Your task to perform on an android device: What is the recent news? Image 0: 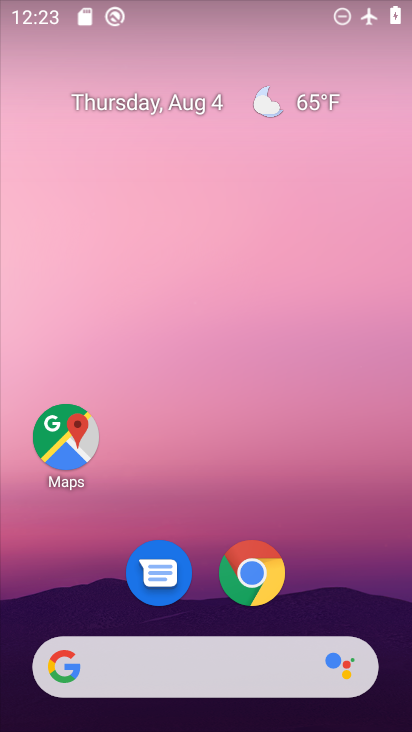
Step 0: drag from (337, 528) to (342, 181)
Your task to perform on an android device: What is the recent news? Image 1: 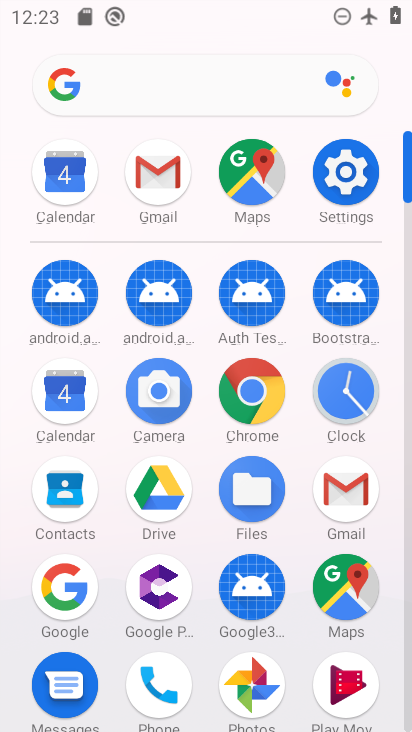
Step 1: click (246, 393)
Your task to perform on an android device: What is the recent news? Image 2: 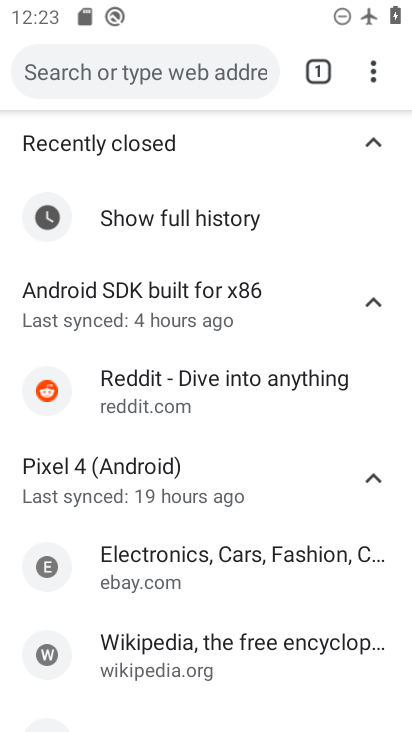
Step 2: click (185, 83)
Your task to perform on an android device: What is the recent news? Image 3: 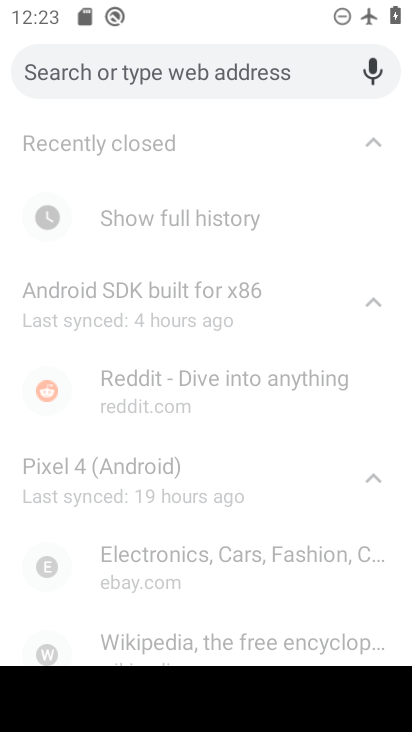
Step 3: type "news"
Your task to perform on an android device: What is the recent news? Image 4: 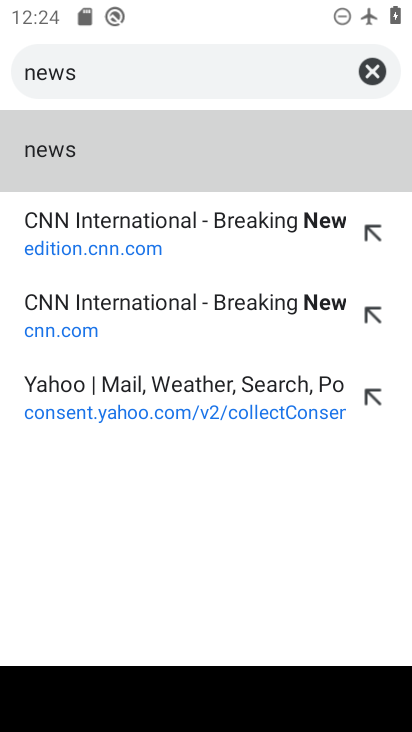
Step 4: click (54, 148)
Your task to perform on an android device: What is the recent news? Image 5: 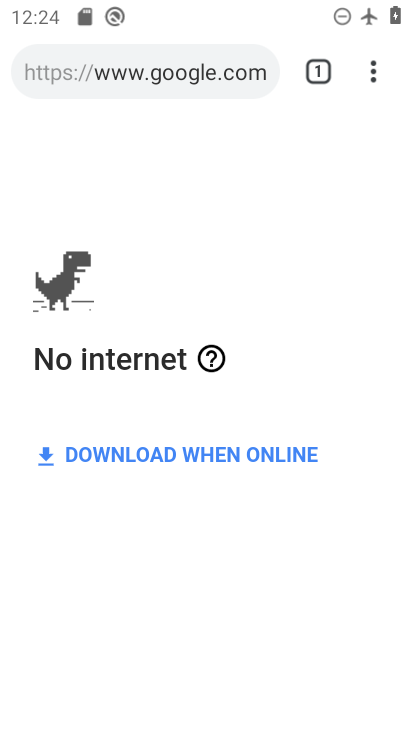
Step 5: task complete